Your task to perform on an android device: Open Chrome and go to the settings page Image 0: 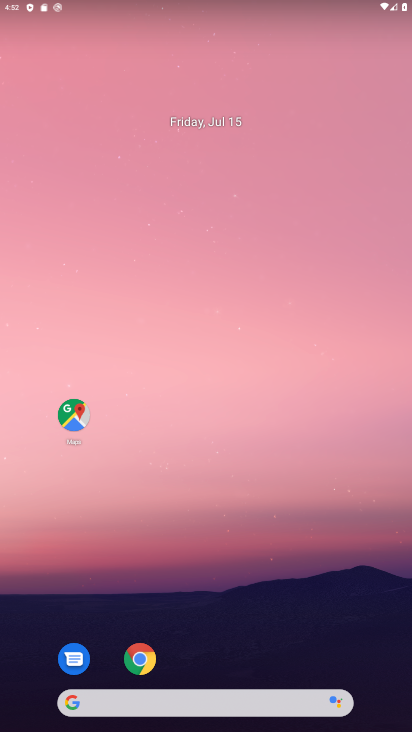
Step 0: click (146, 658)
Your task to perform on an android device: Open Chrome and go to the settings page Image 1: 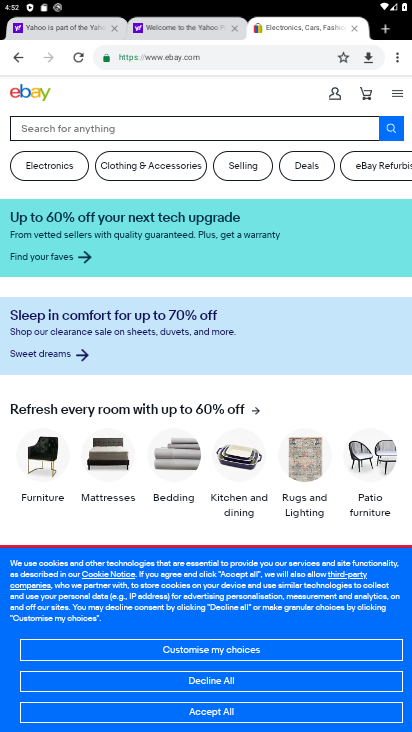
Step 1: click (405, 60)
Your task to perform on an android device: Open Chrome and go to the settings page Image 2: 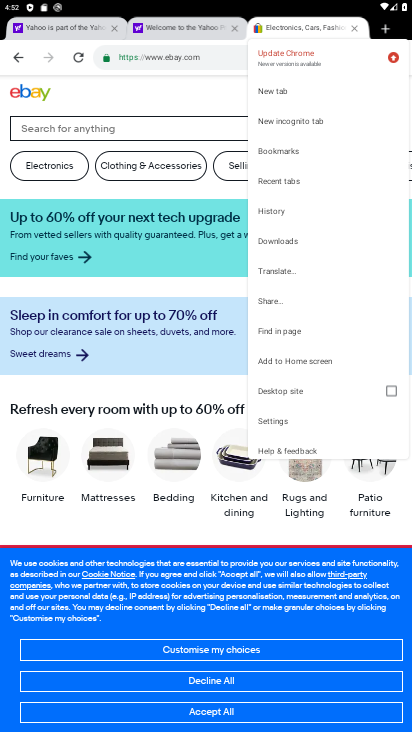
Step 2: click (291, 434)
Your task to perform on an android device: Open Chrome and go to the settings page Image 3: 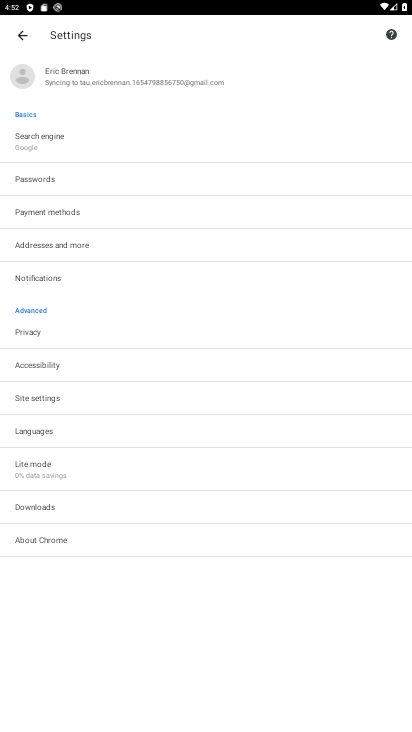
Step 3: task complete